Your task to perform on an android device: Search for seafood restaurants on Google Maps Image 0: 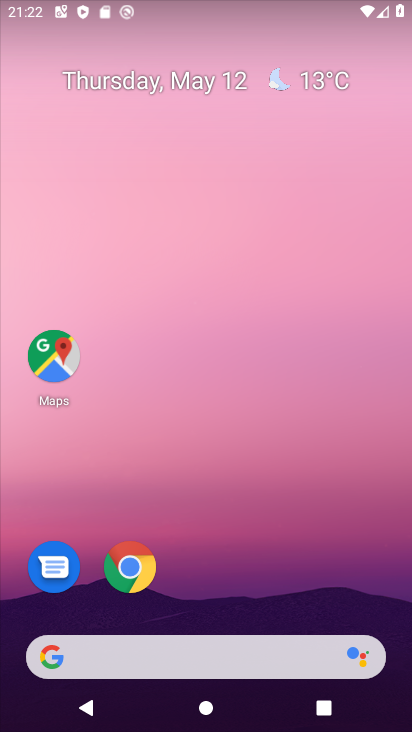
Step 0: press home button
Your task to perform on an android device: Search for seafood restaurants on Google Maps Image 1: 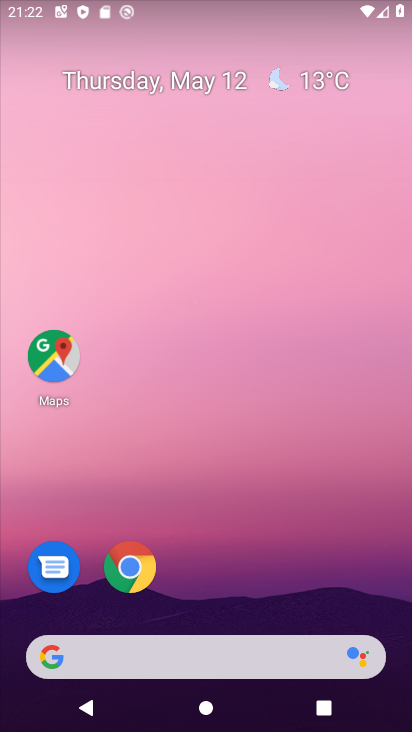
Step 1: click (53, 359)
Your task to perform on an android device: Search for seafood restaurants on Google Maps Image 2: 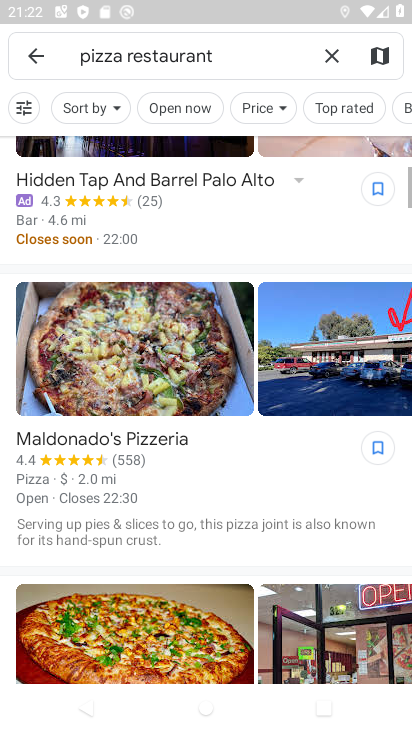
Step 2: click (334, 58)
Your task to perform on an android device: Search for seafood restaurants on Google Maps Image 3: 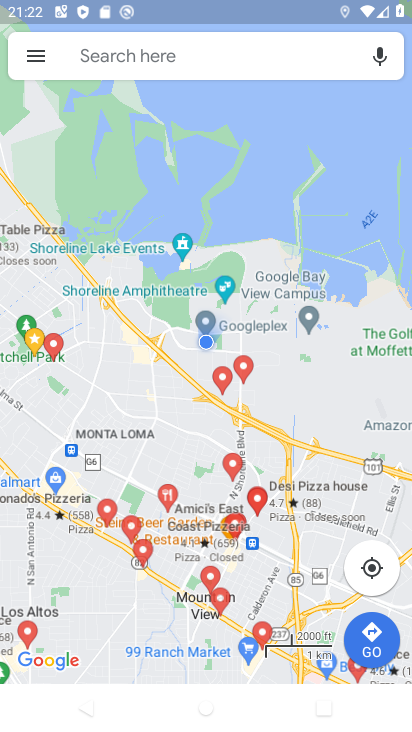
Step 3: click (154, 55)
Your task to perform on an android device: Search for seafood restaurants on Google Maps Image 4: 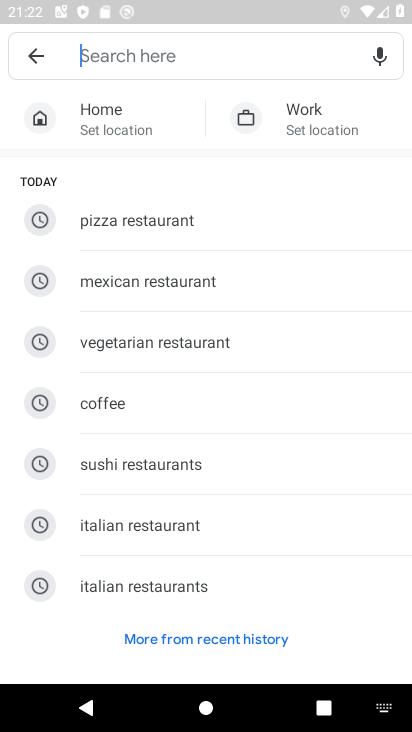
Step 4: type "seafood"
Your task to perform on an android device: Search for seafood restaurants on Google Maps Image 5: 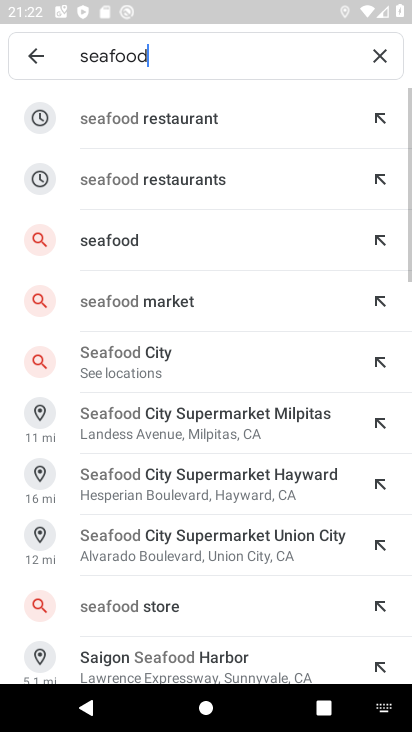
Step 5: click (192, 117)
Your task to perform on an android device: Search for seafood restaurants on Google Maps Image 6: 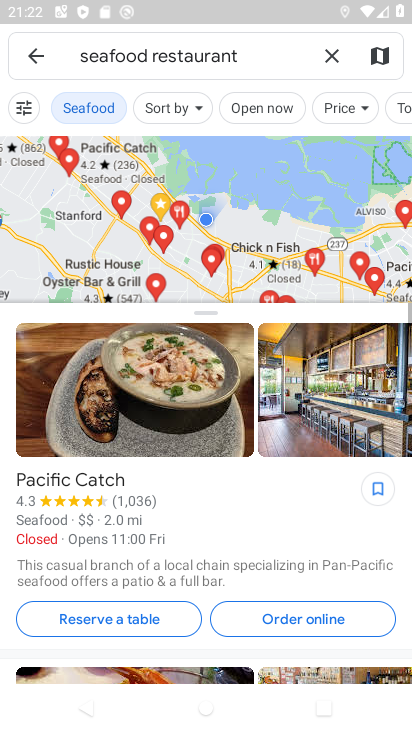
Step 6: task complete